Your task to perform on an android device: Open CNN.com Image 0: 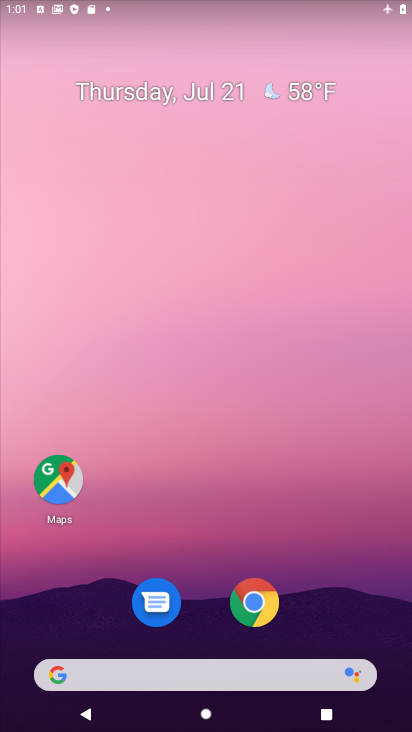
Step 0: drag from (381, 651) to (244, 61)
Your task to perform on an android device: Open CNN.com Image 1: 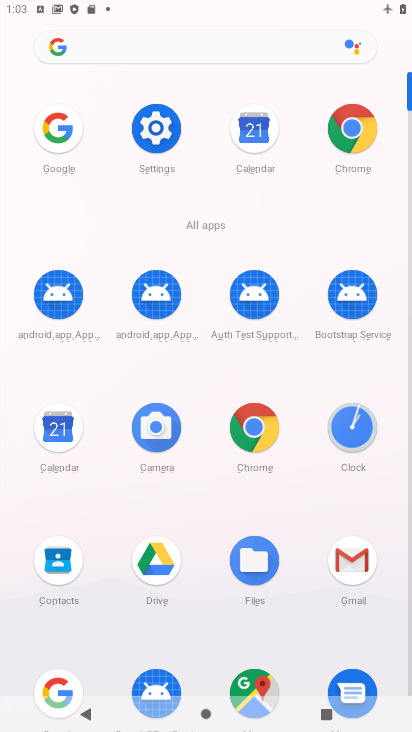
Step 1: click (51, 679)
Your task to perform on an android device: Open CNN.com Image 2: 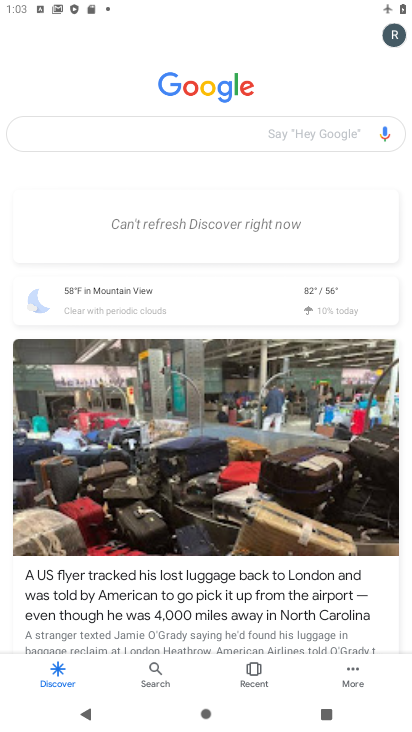
Step 2: click (154, 139)
Your task to perform on an android device: Open CNN.com Image 3: 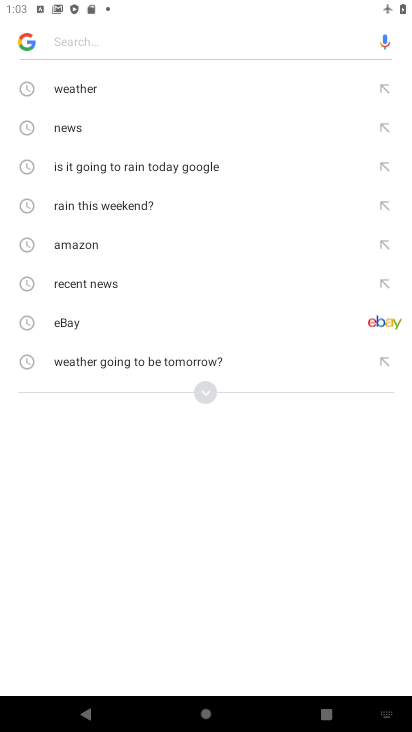
Step 3: type "cnn.com"
Your task to perform on an android device: Open CNN.com Image 4: 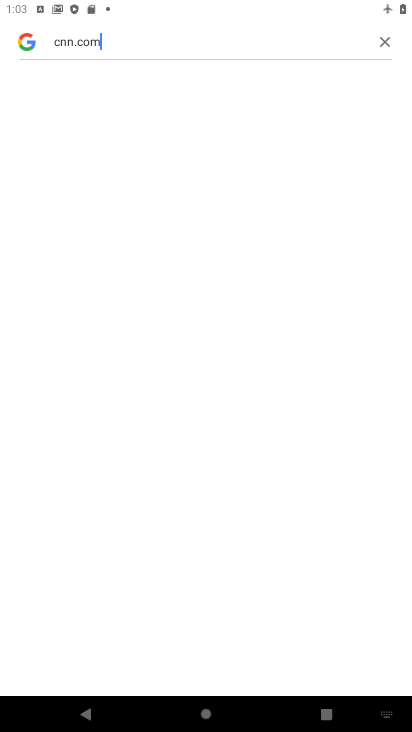
Step 4: task complete